Your task to perform on an android device: Open Amazon Image 0: 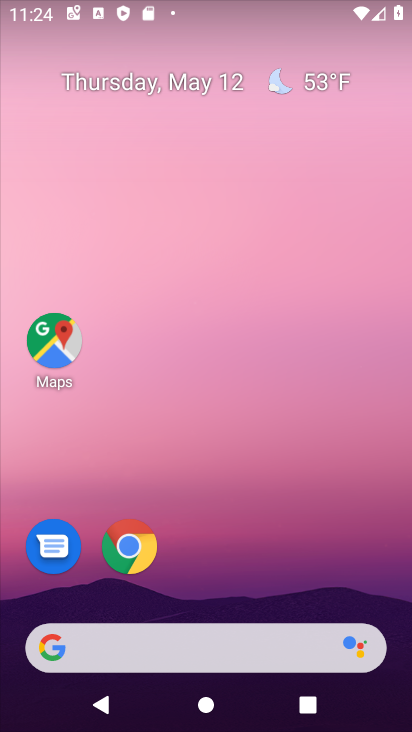
Step 0: drag from (265, 692) to (167, 303)
Your task to perform on an android device: Open Amazon Image 1: 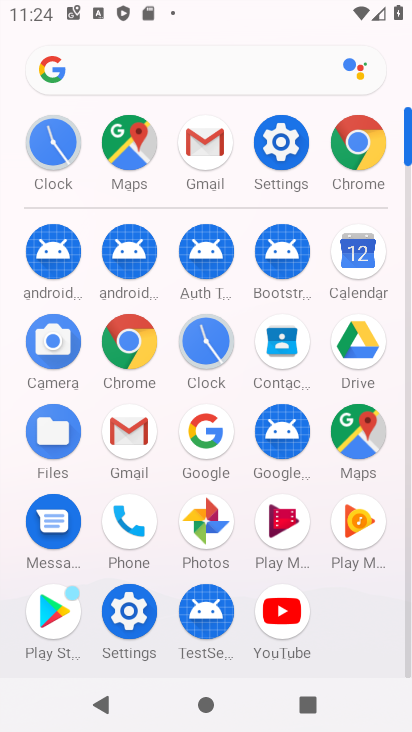
Step 1: click (347, 170)
Your task to perform on an android device: Open Amazon Image 2: 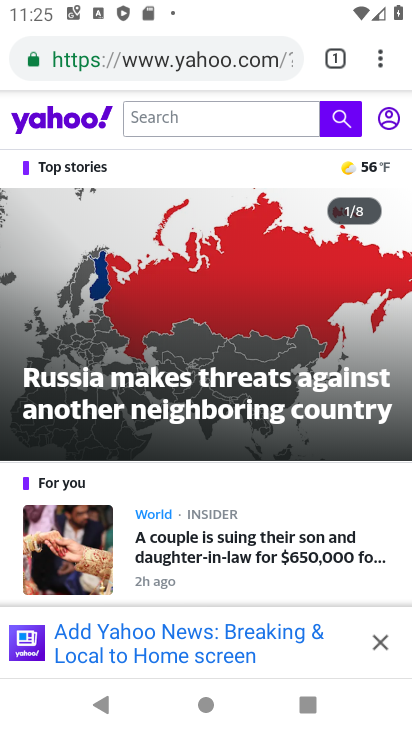
Step 2: click (378, 55)
Your task to perform on an android device: Open Amazon Image 3: 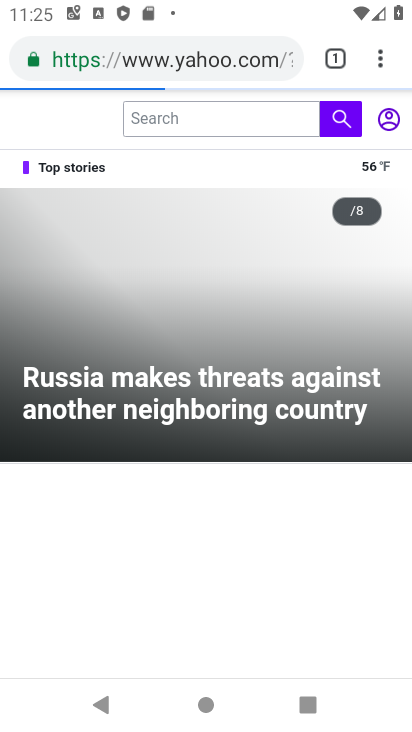
Step 3: click (365, 75)
Your task to perform on an android device: Open Amazon Image 4: 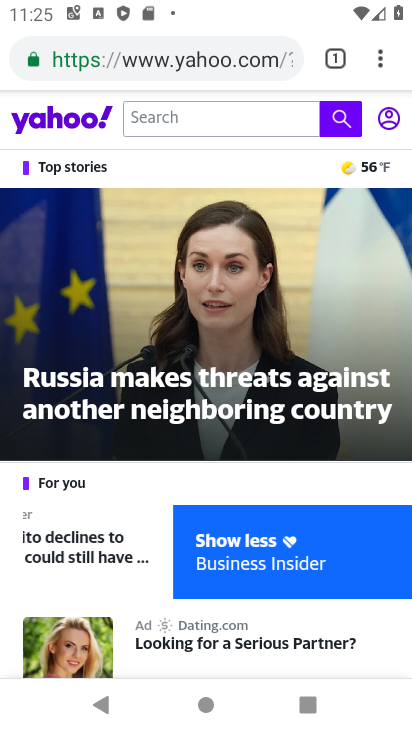
Step 4: click (374, 73)
Your task to perform on an android device: Open Amazon Image 5: 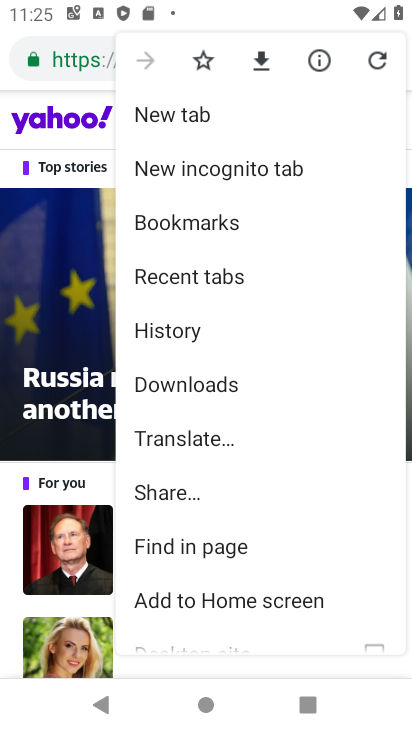
Step 5: click (174, 123)
Your task to perform on an android device: Open Amazon Image 6: 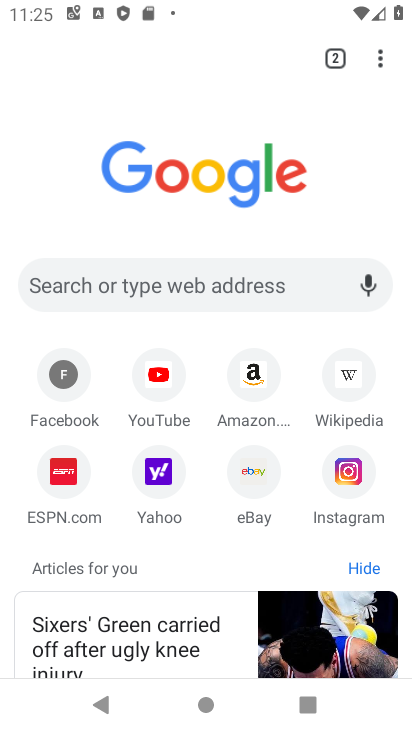
Step 6: click (257, 382)
Your task to perform on an android device: Open Amazon Image 7: 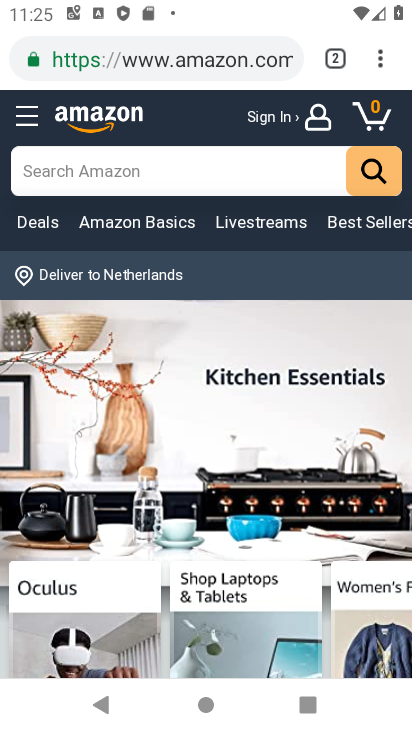
Step 7: task complete